Your task to perform on an android device: Open the Play Movies app and select the watchlist tab. Image 0: 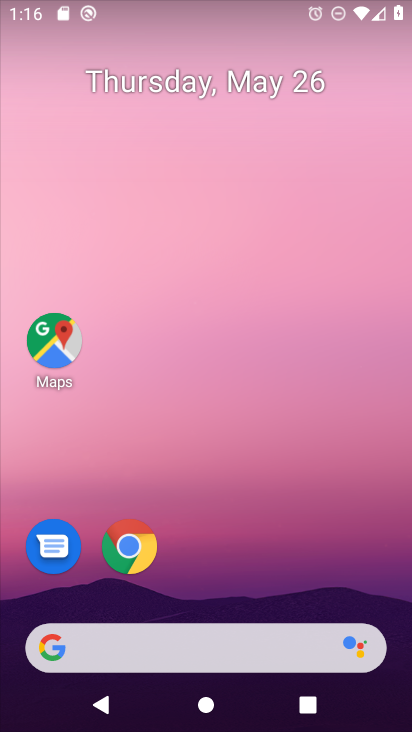
Step 0: drag from (240, 607) to (326, 54)
Your task to perform on an android device: Open the Play Movies app and select the watchlist tab. Image 1: 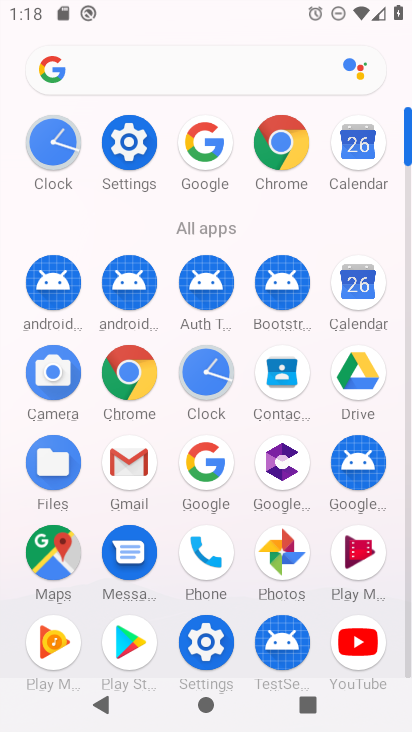
Step 1: click (353, 550)
Your task to perform on an android device: Open the Play Movies app and select the watchlist tab. Image 2: 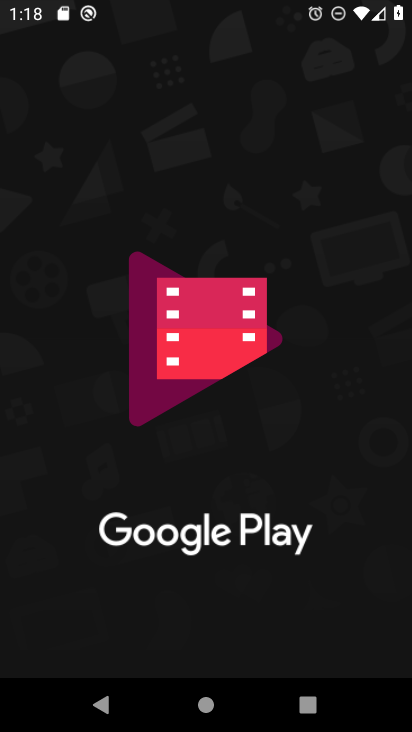
Step 2: click (348, 657)
Your task to perform on an android device: Open the Play Movies app and select the watchlist tab. Image 3: 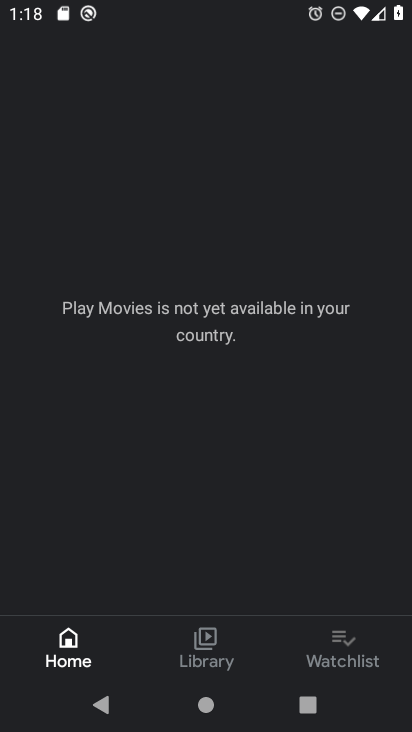
Step 3: click (352, 665)
Your task to perform on an android device: Open the Play Movies app and select the watchlist tab. Image 4: 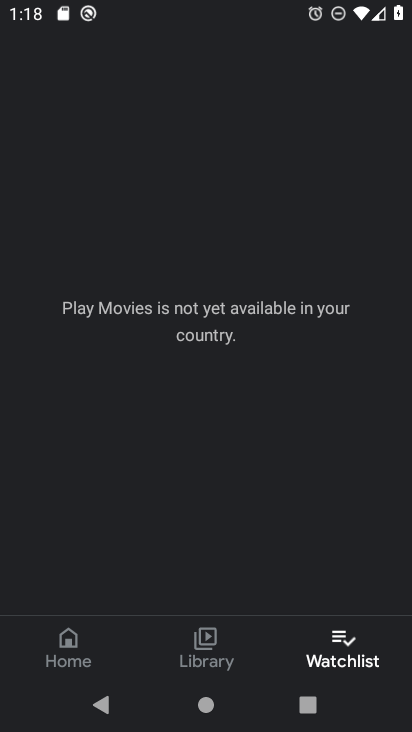
Step 4: click (278, 665)
Your task to perform on an android device: Open the Play Movies app and select the watchlist tab. Image 5: 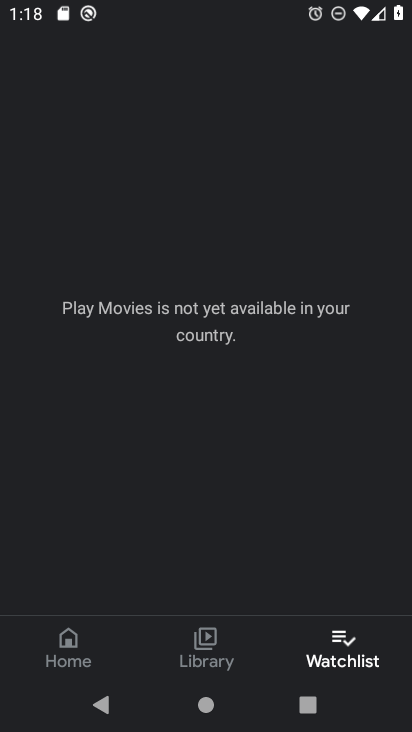
Step 5: task complete